Your task to perform on an android device: Go to settings Image 0: 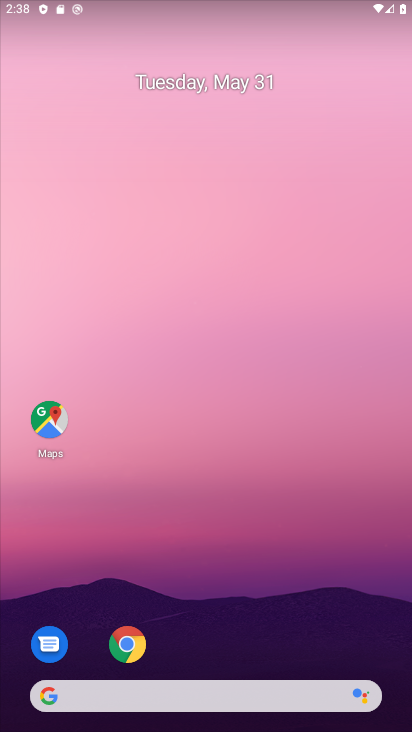
Step 0: drag from (216, 625) to (224, 116)
Your task to perform on an android device: Go to settings Image 1: 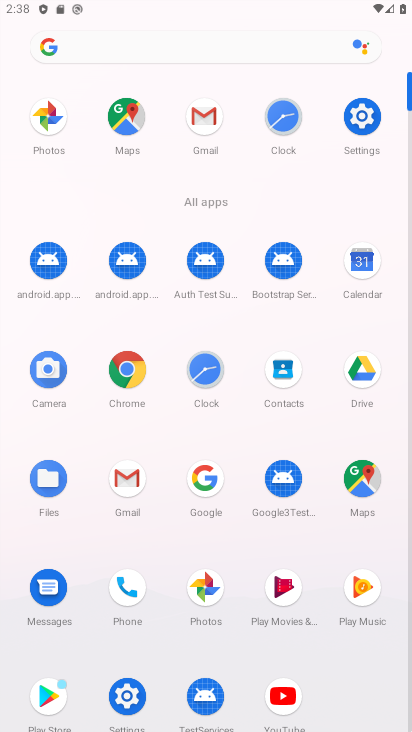
Step 1: click (356, 132)
Your task to perform on an android device: Go to settings Image 2: 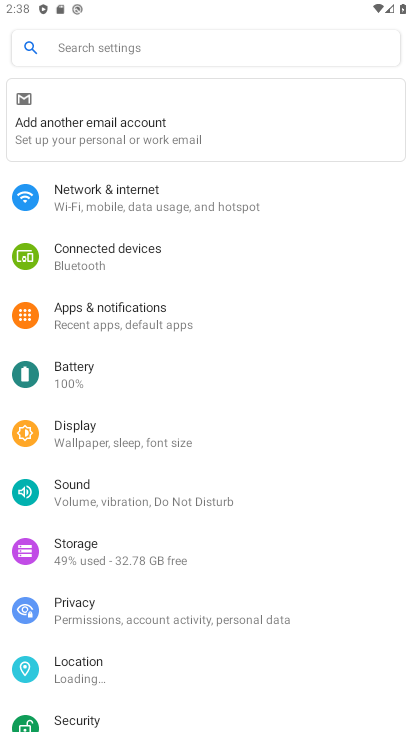
Step 2: task complete